Your task to perform on an android device: Open eBay Image 0: 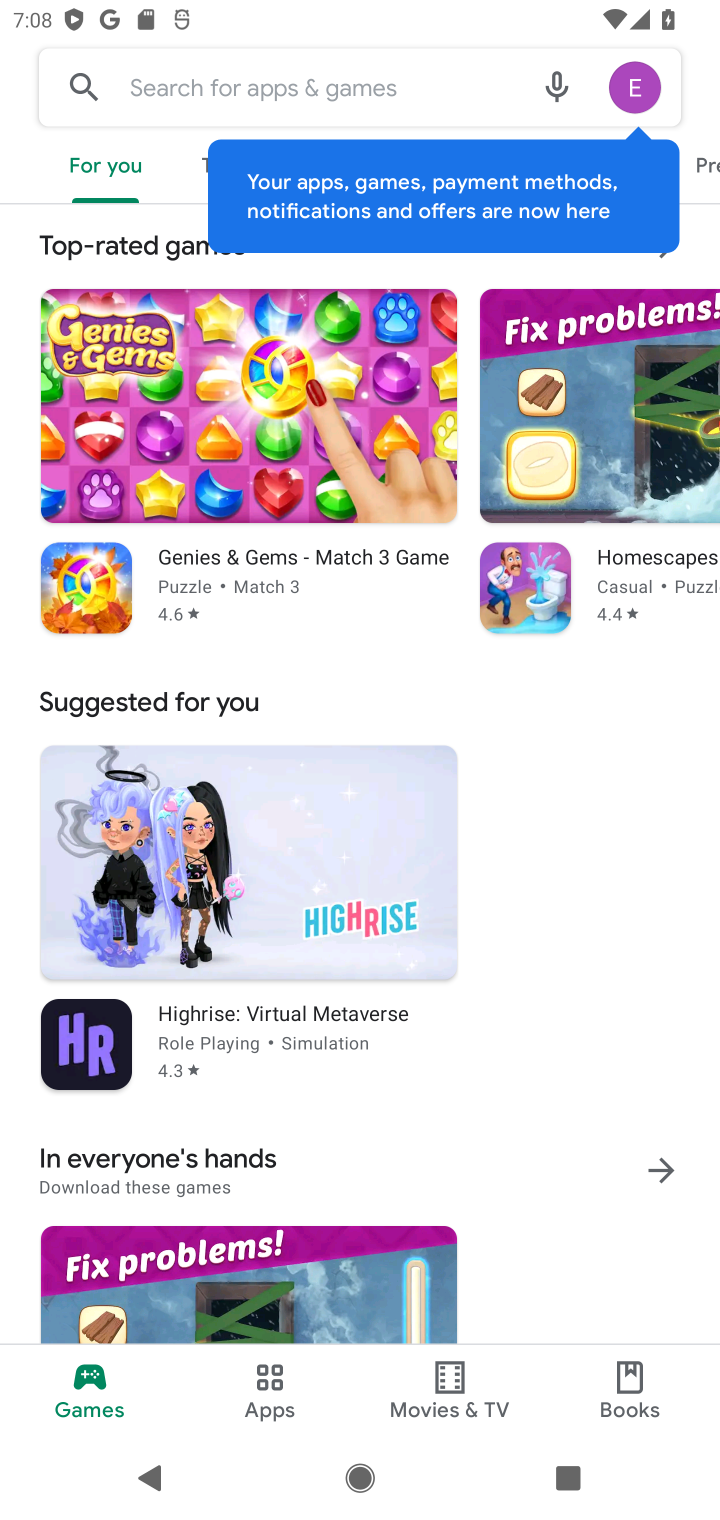
Step 0: press home button
Your task to perform on an android device: Open eBay Image 1: 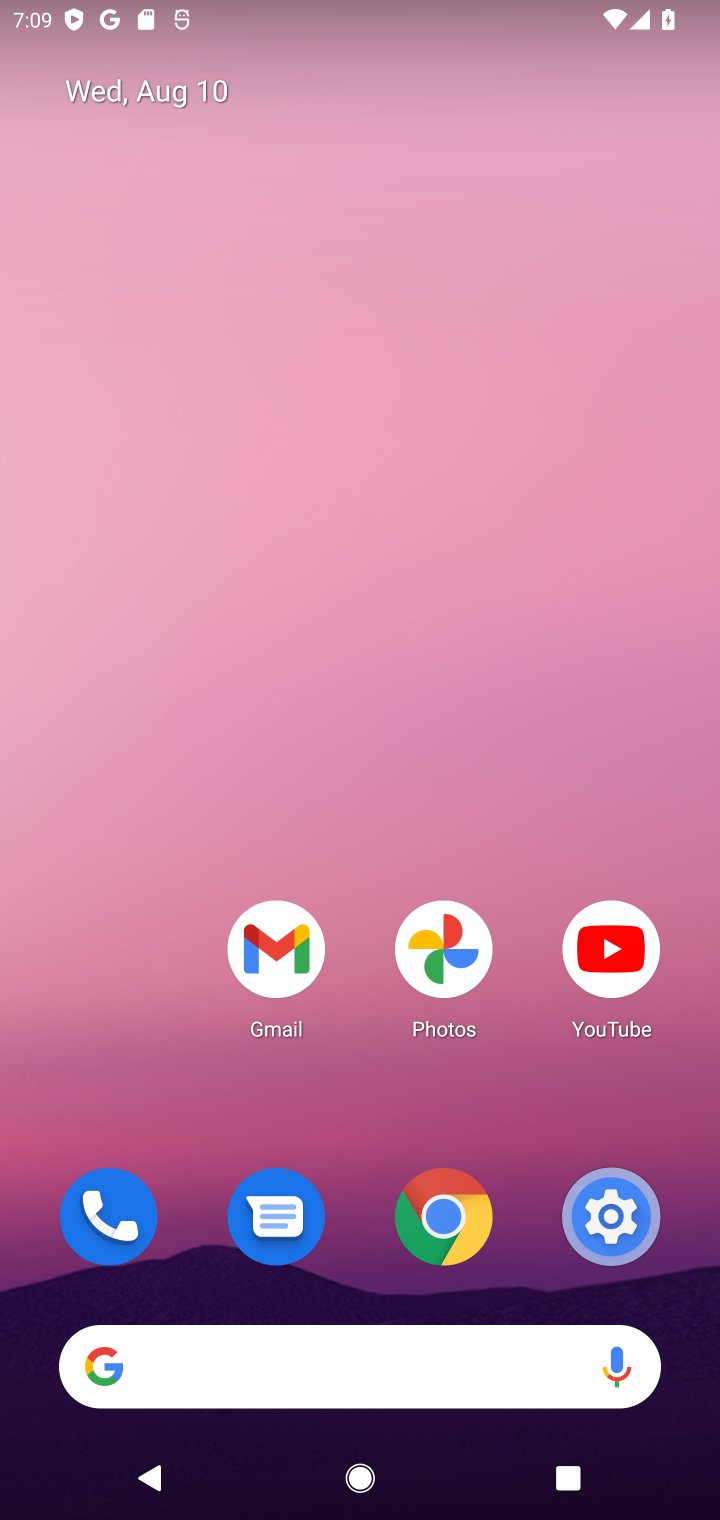
Step 1: click (445, 1220)
Your task to perform on an android device: Open eBay Image 2: 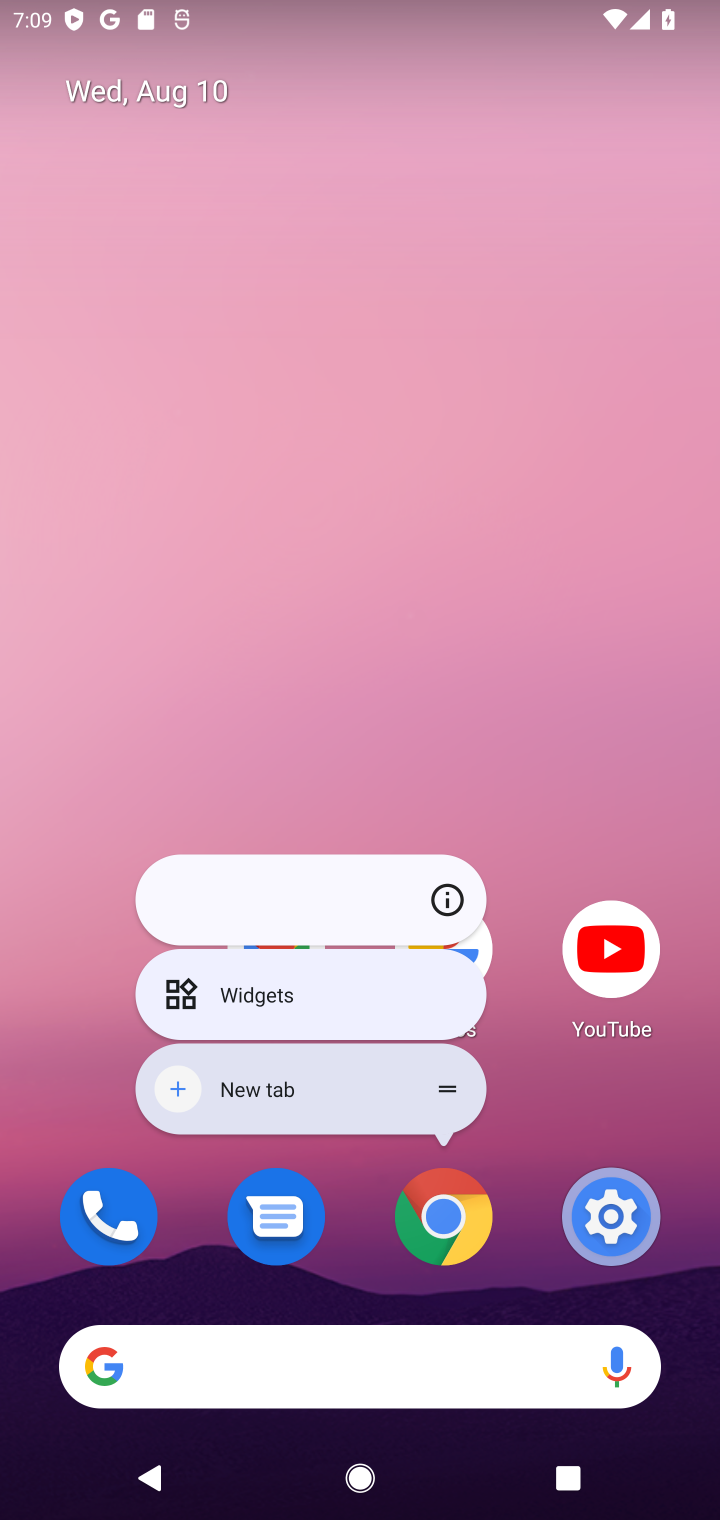
Step 2: click (208, 1073)
Your task to perform on an android device: Open eBay Image 3: 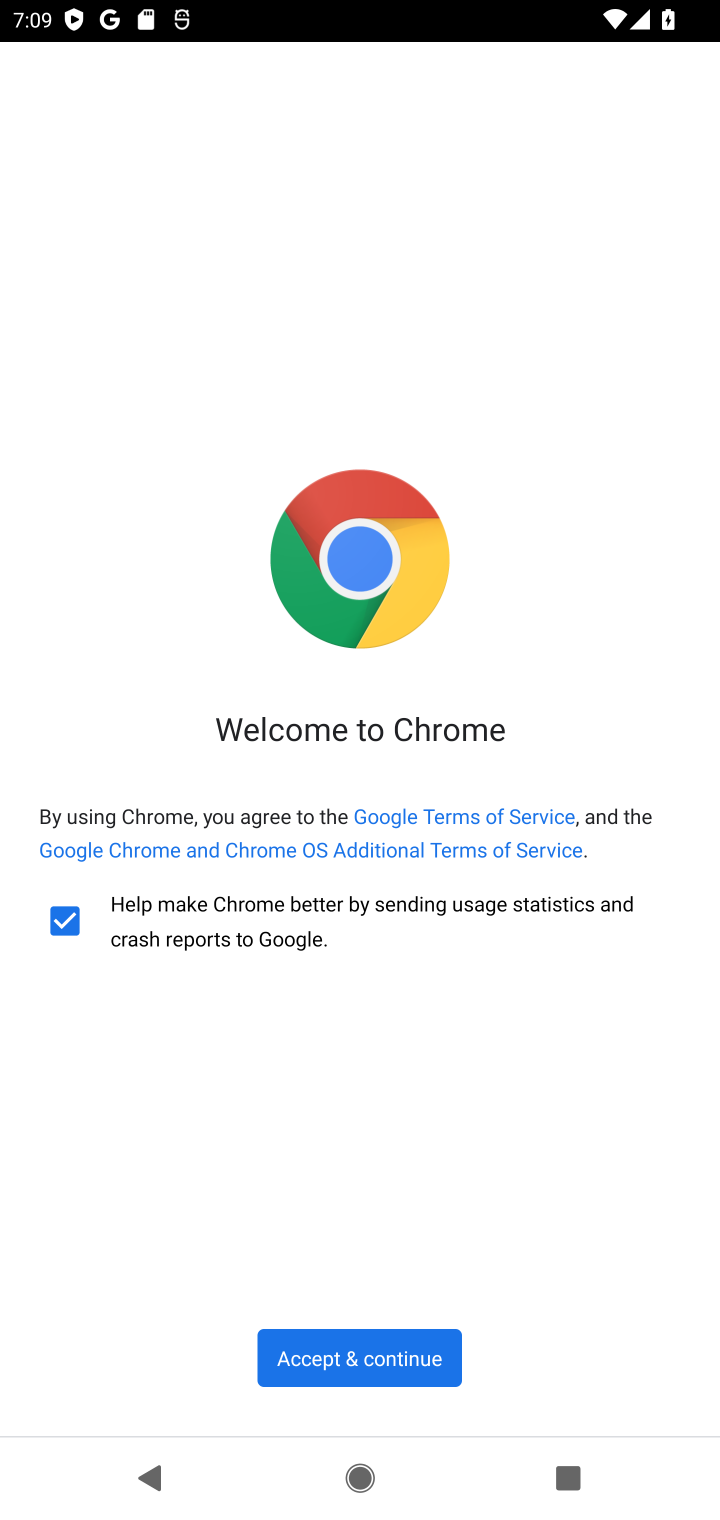
Step 3: click (401, 1368)
Your task to perform on an android device: Open eBay Image 4: 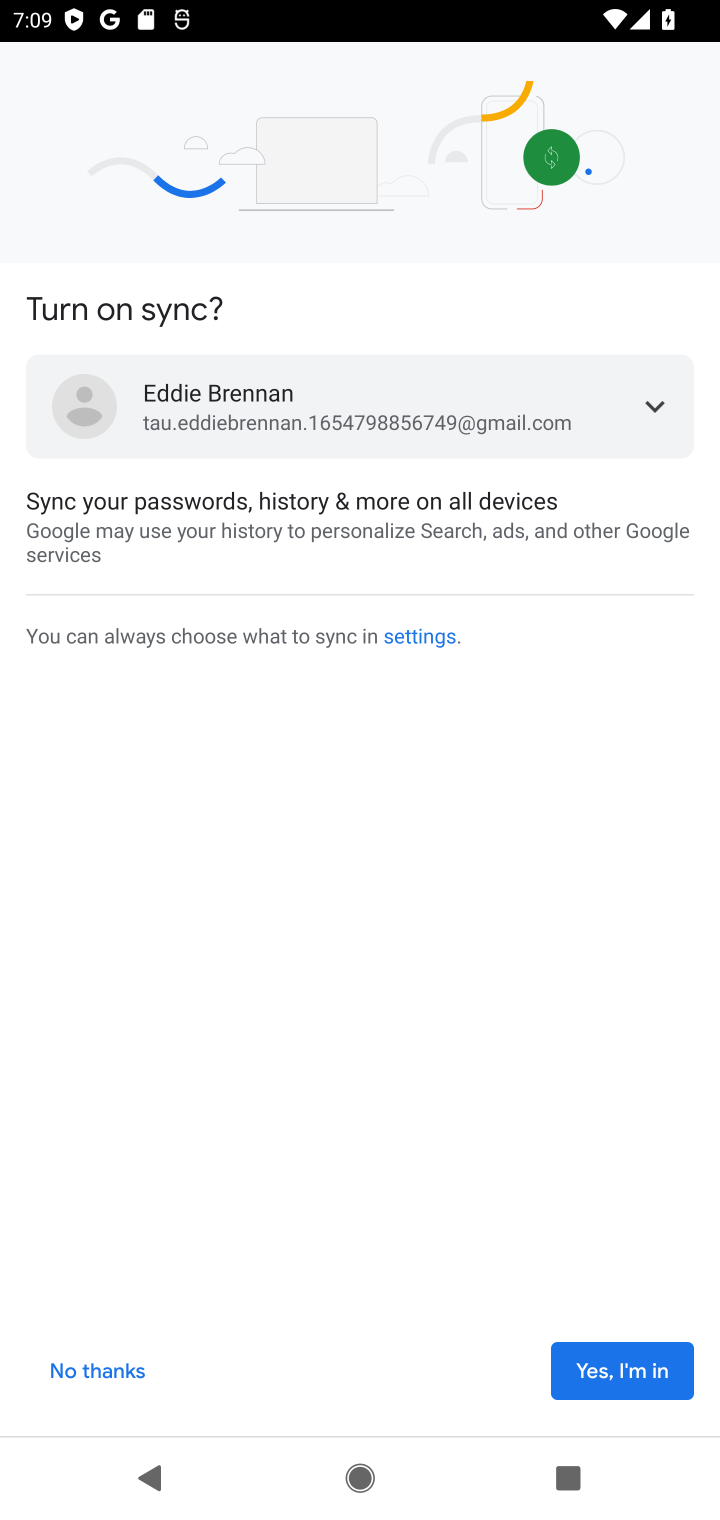
Step 4: click (99, 1357)
Your task to perform on an android device: Open eBay Image 5: 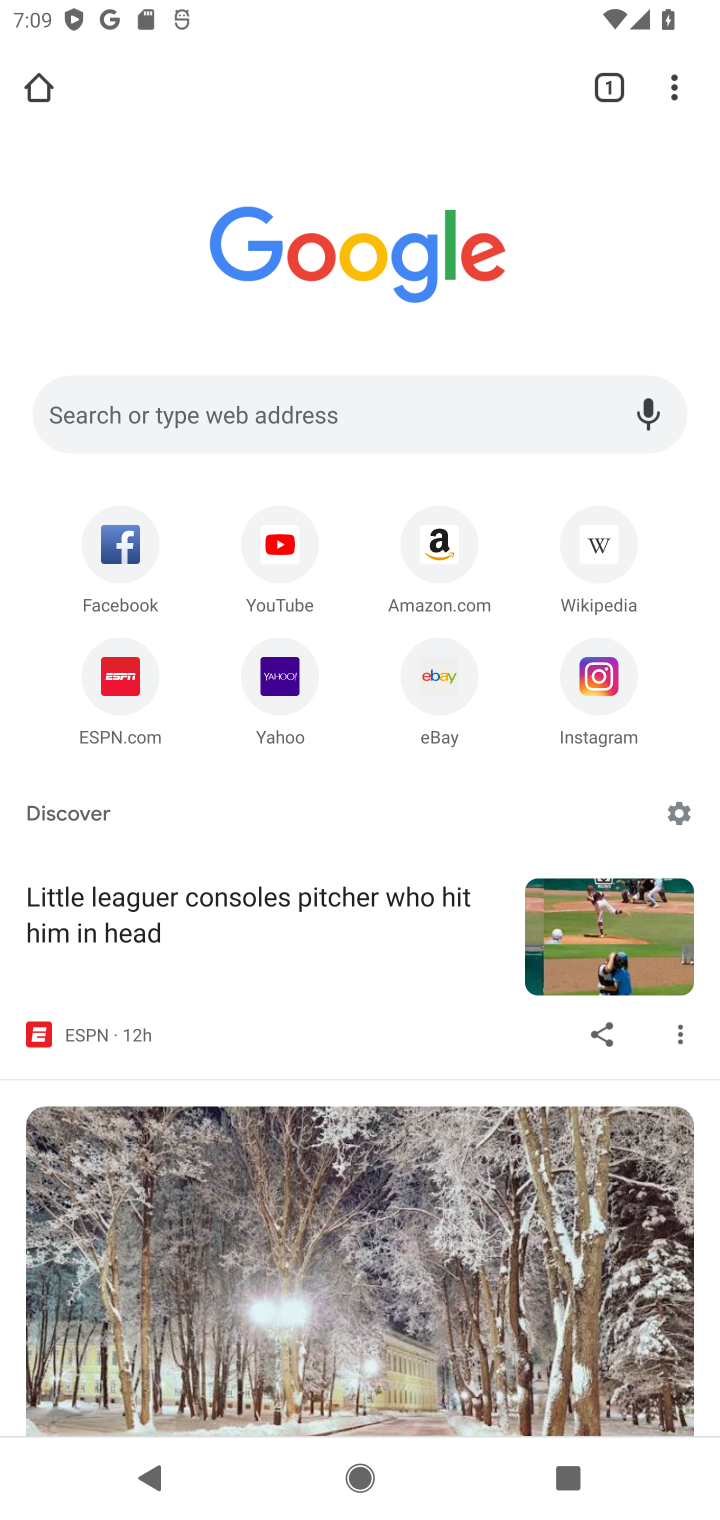
Step 5: click (422, 695)
Your task to perform on an android device: Open eBay Image 6: 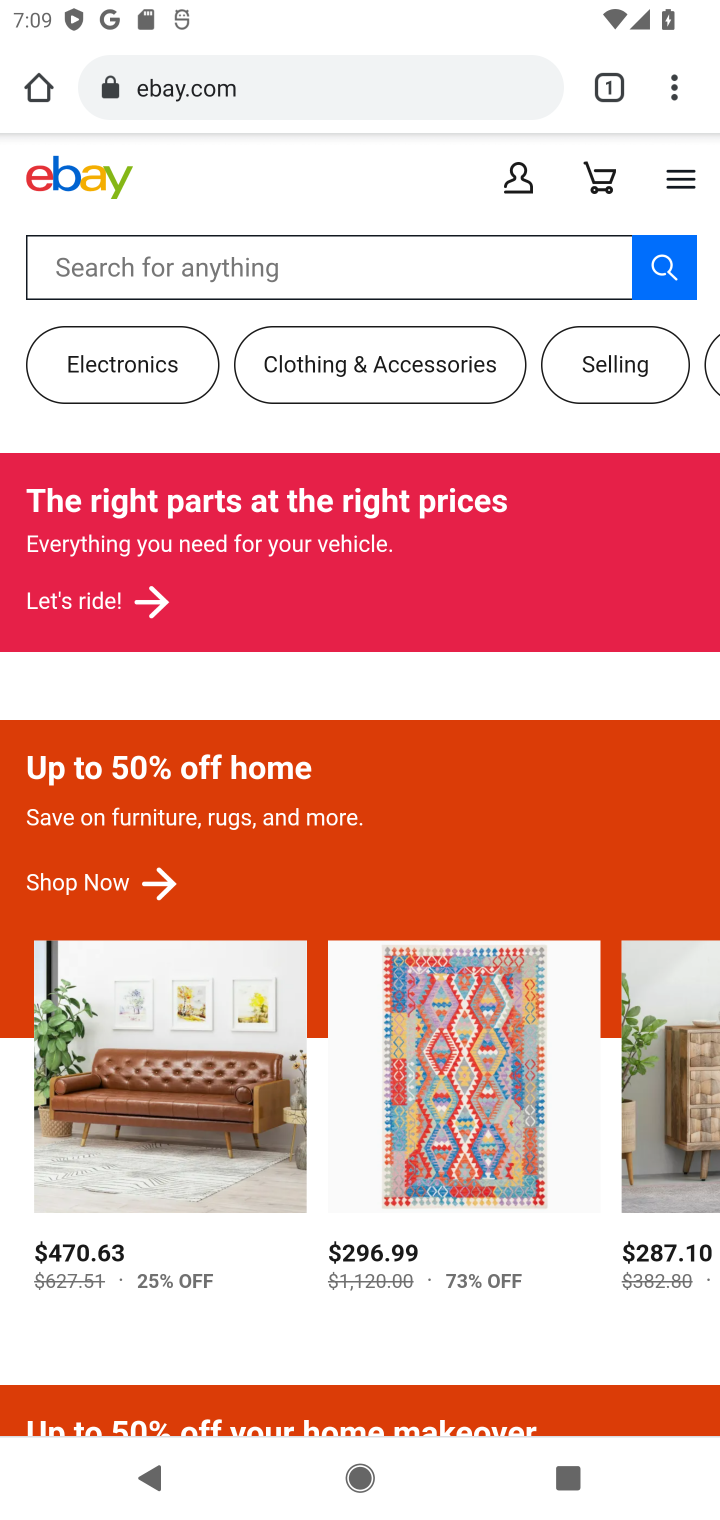
Step 6: task complete